Your task to perform on an android device: When is my next appointment? Image 0: 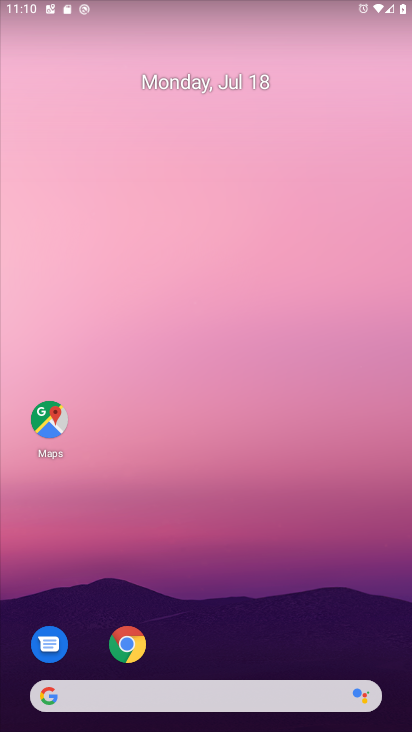
Step 0: drag from (271, 639) to (289, 92)
Your task to perform on an android device: When is my next appointment? Image 1: 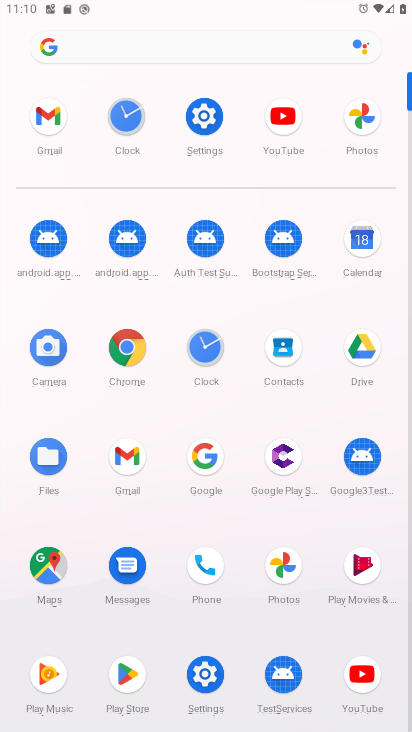
Step 1: click (368, 249)
Your task to perform on an android device: When is my next appointment? Image 2: 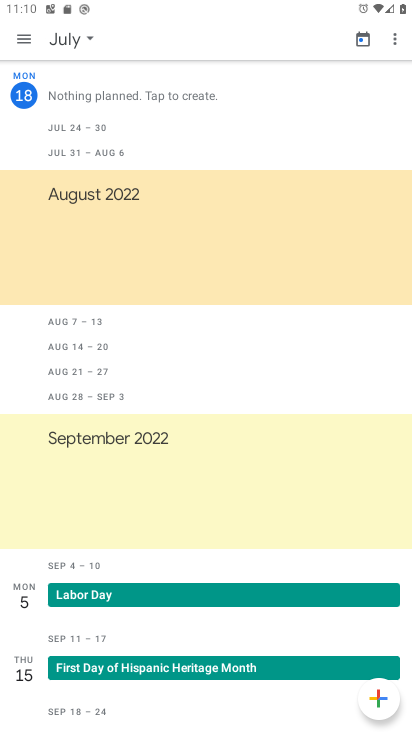
Step 2: task complete